Your task to perform on an android device: Search for Mexican restaurants on Maps Image 0: 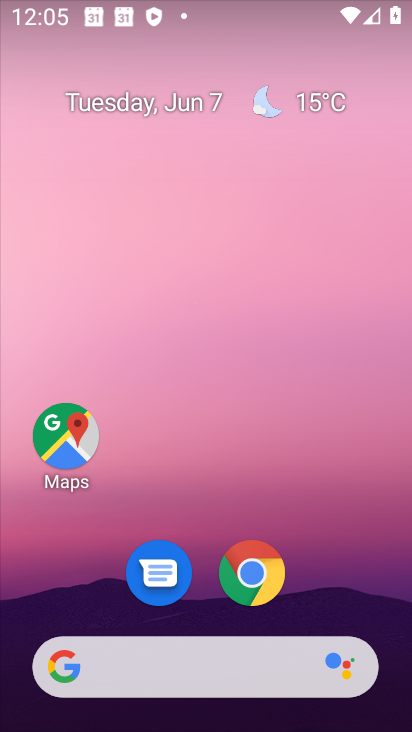
Step 0: press home button
Your task to perform on an android device: Search for Mexican restaurants on Maps Image 1: 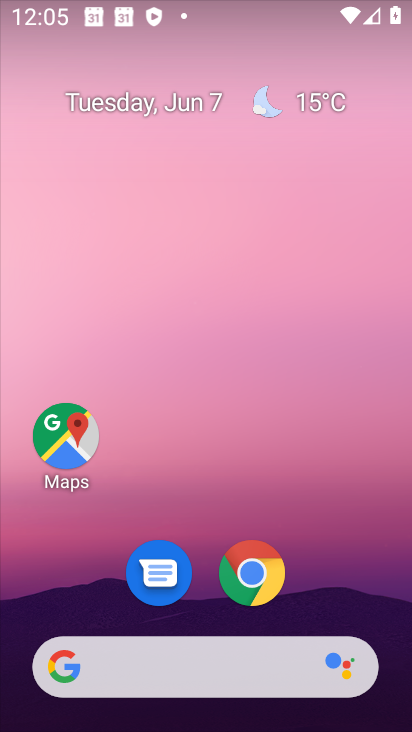
Step 1: click (60, 438)
Your task to perform on an android device: Search for Mexican restaurants on Maps Image 2: 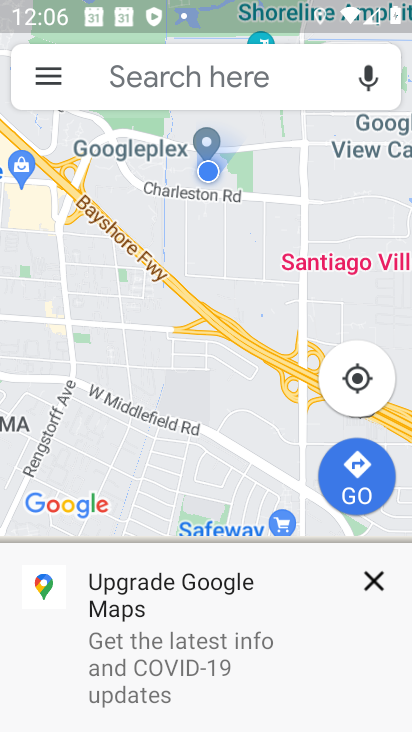
Step 2: click (144, 87)
Your task to perform on an android device: Search for Mexican restaurants on Maps Image 3: 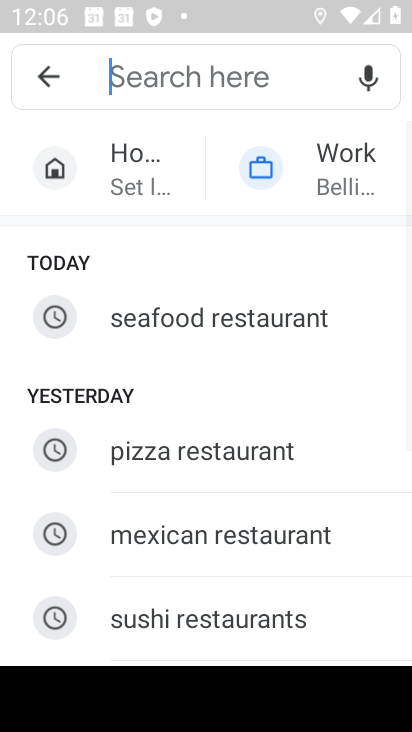
Step 3: click (227, 543)
Your task to perform on an android device: Search for Mexican restaurants on Maps Image 4: 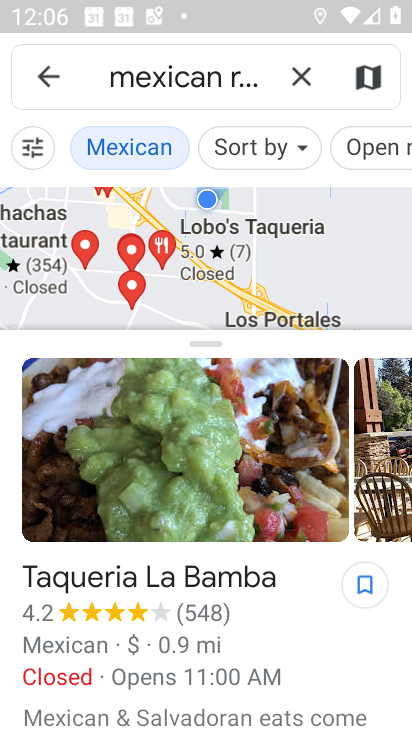
Step 4: task complete